Your task to perform on an android device: open sync settings in chrome Image 0: 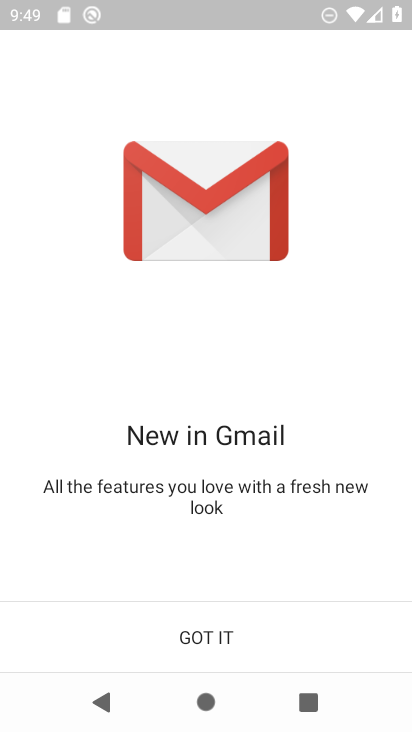
Step 0: press home button
Your task to perform on an android device: open sync settings in chrome Image 1: 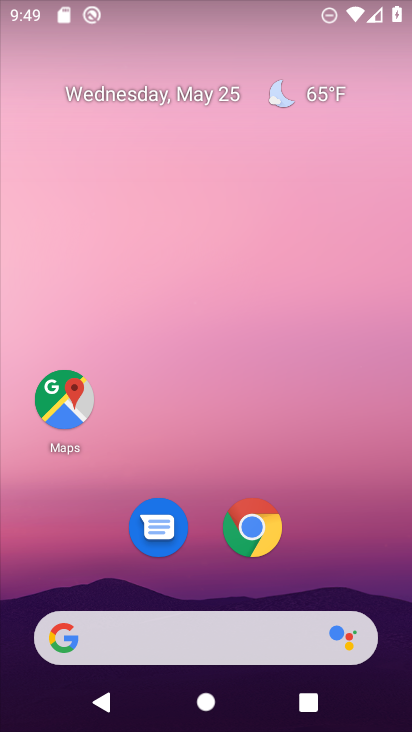
Step 1: click (254, 528)
Your task to perform on an android device: open sync settings in chrome Image 2: 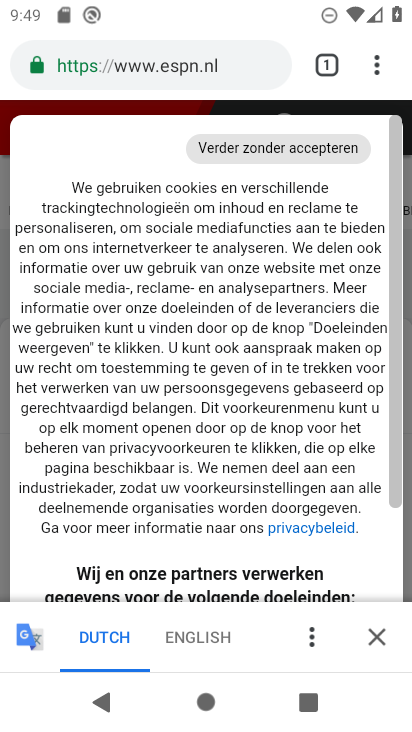
Step 2: click (378, 63)
Your task to perform on an android device: open sync settings in chrome Image 3: 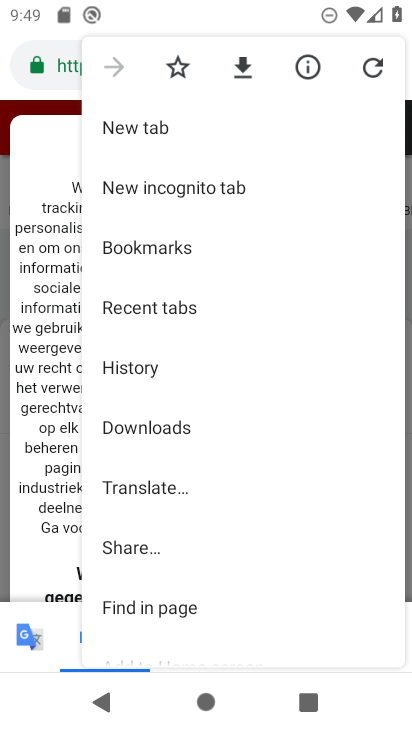
Step 3: drag from (166, 518) to (200, 265)
Your task to perform on an android device: open sync settings in chrome Image 4: 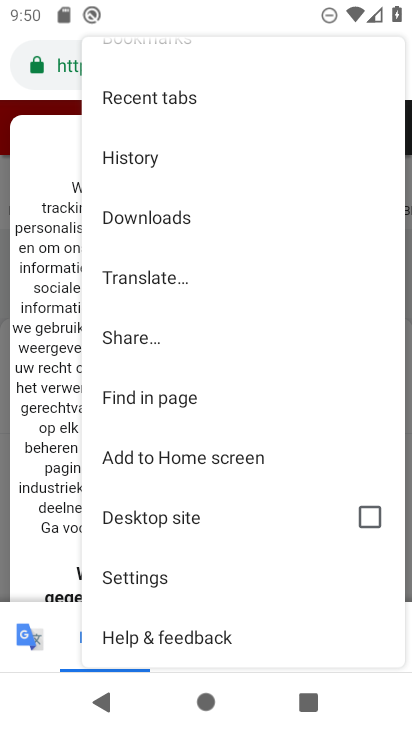
Step 4: click (148, 578)
Your task to perform on an android device: open sync settings in chrome Image 5: 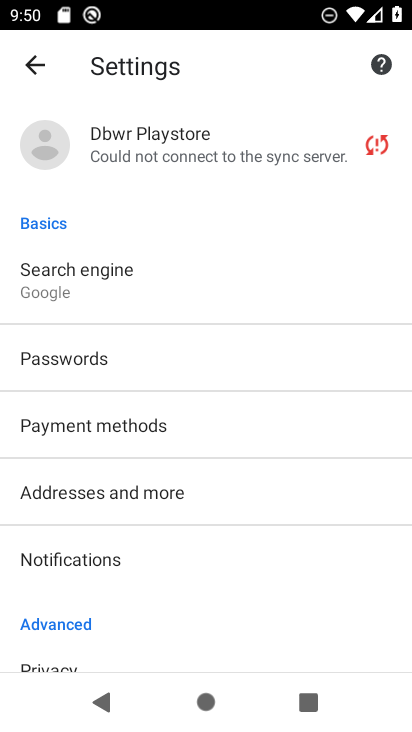
Step 5: drag from (146, 541) to (130, 201)
Your task to perform on an android device: open sync settings in chrome Image 6: 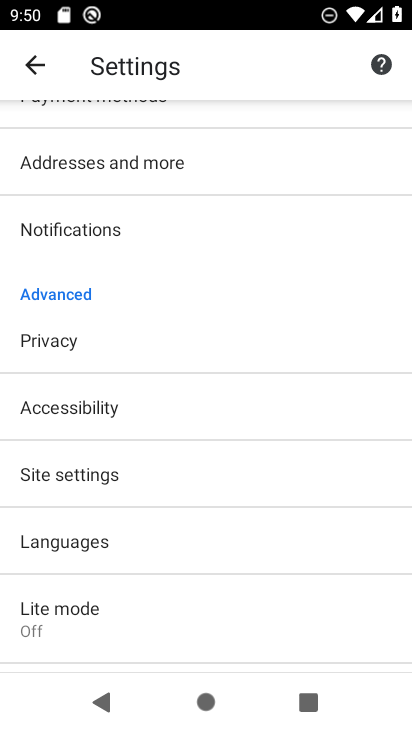
Step 6: click (78, 479)
Your task to perform on an android device: open sync settings in chrome Image 7: 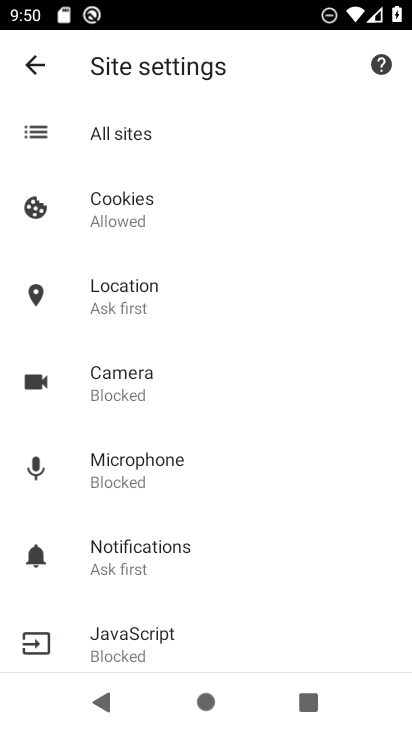
Step 7: drag from (177, 569) to (179, 308)
Your task to perform on an android device: open sync settings in chrome Image 8: 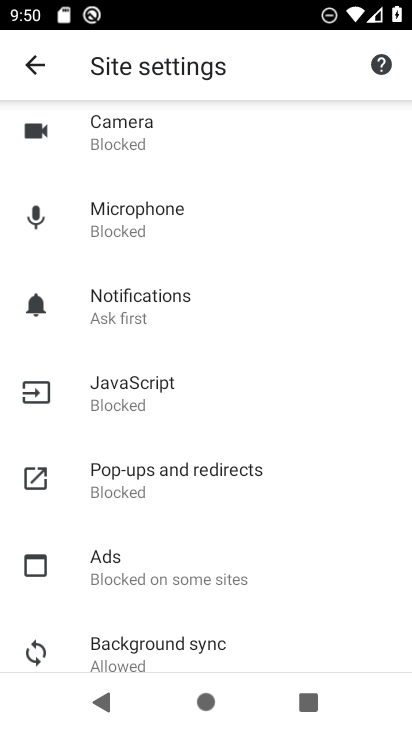
Step 8: click (182, 642)
Your task to perform on an android device: open sync settings in chrome Image 9: 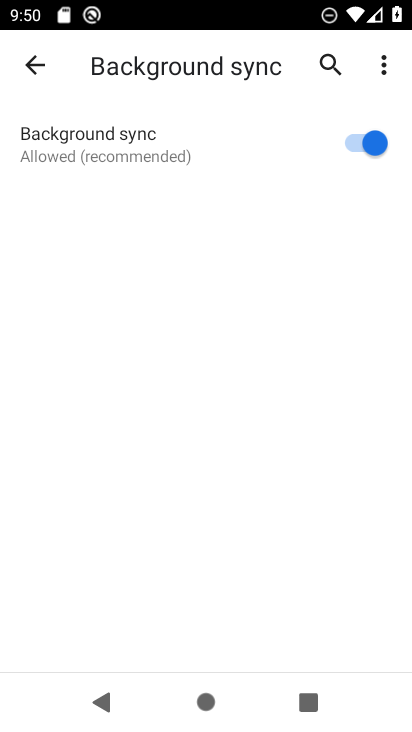
Step 9: task complete